Your task to perform on an android device: turn on airplane mode Image 0: 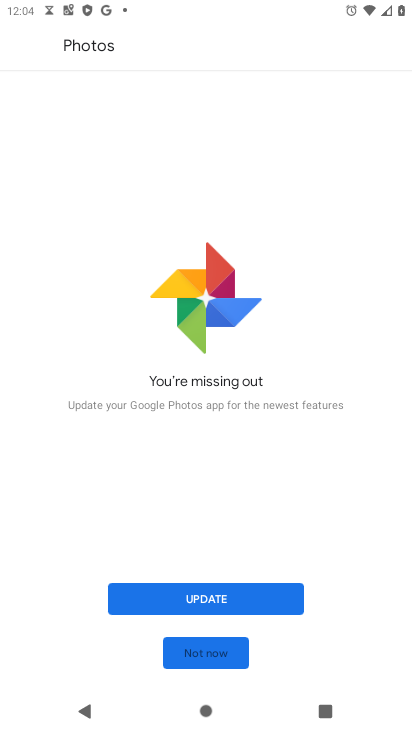
Step 0: press home button
Your task to perform on an android device: turn on airplane mode Image 1: 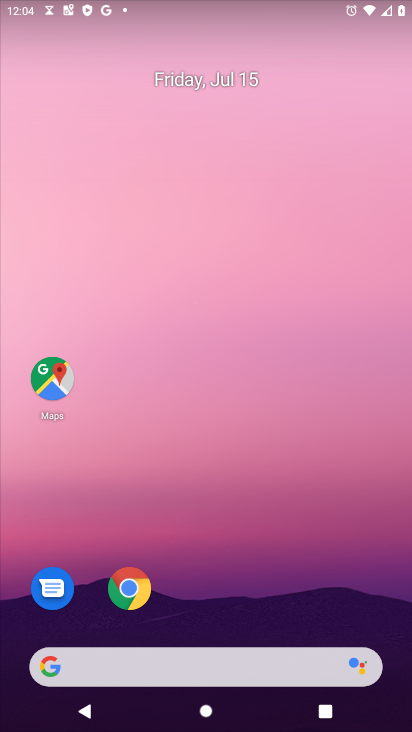
Step 1: drag from (155, 670) to (254, 83)
Your task to perform on an android device: turn on airplane mode Image 2: 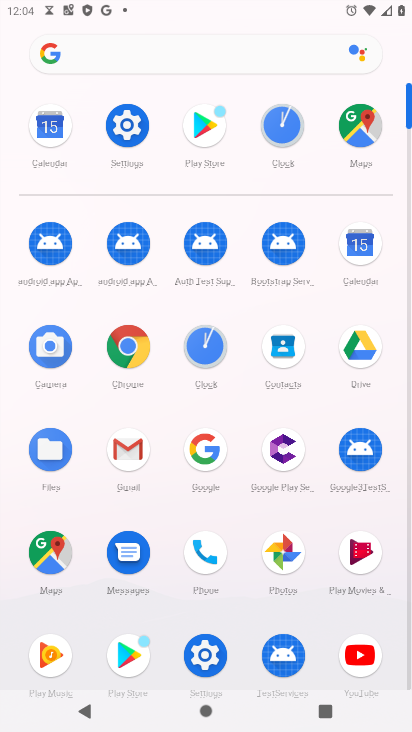
Step 2: click (123, 132)
Your task to perform on an android device: turn on airplane mode Image 3: 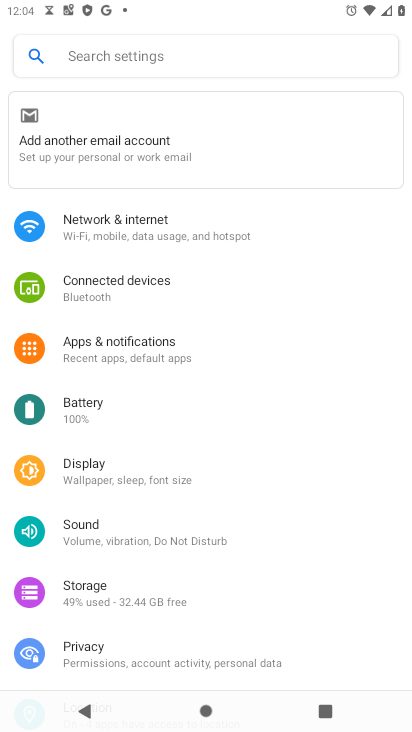
Step 3: click (147, 232)
Your task to perform on an android device: turn on airplane mode Image 4: 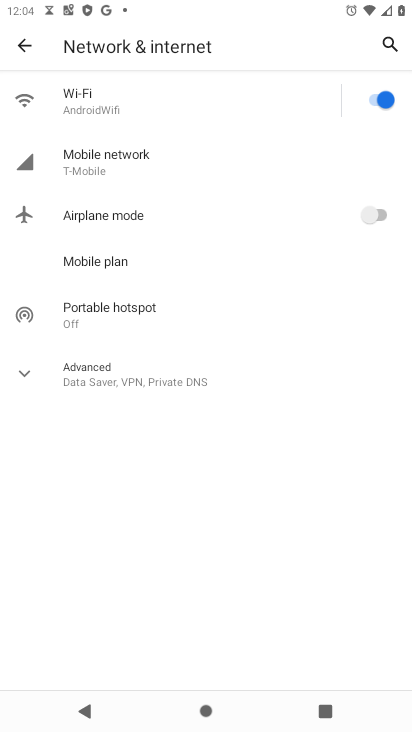
Step 4: click (377, 214)
Your task to perform on an android device: turn on airplane mode Image 5: 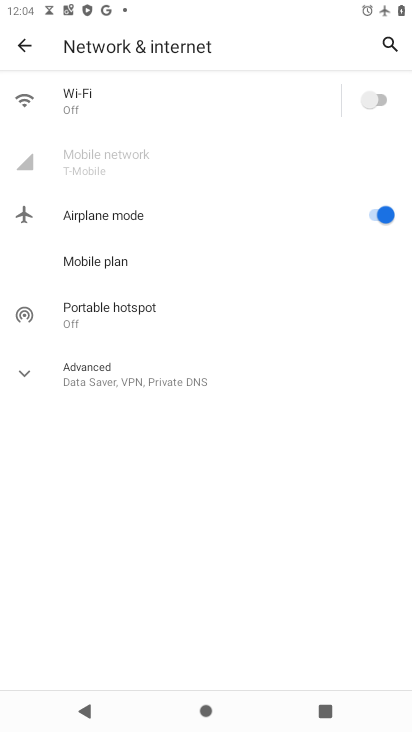
Step 5: click (369, 216)
Your task to perform on an android device: turn on airplane mode Image 6: 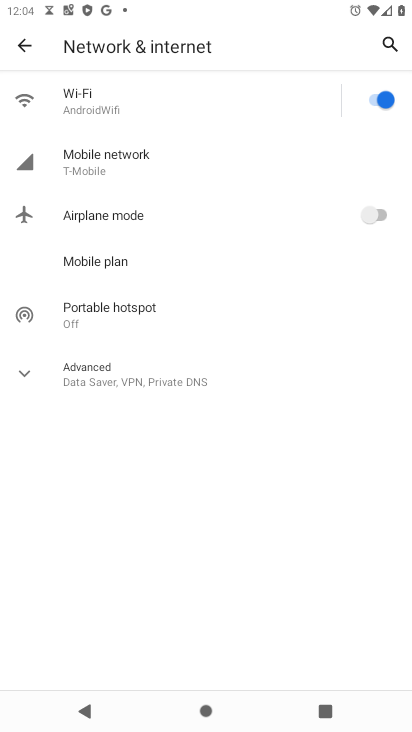
Step 6: task complete